Your task to perform on an android device: Go to settings Image 0: 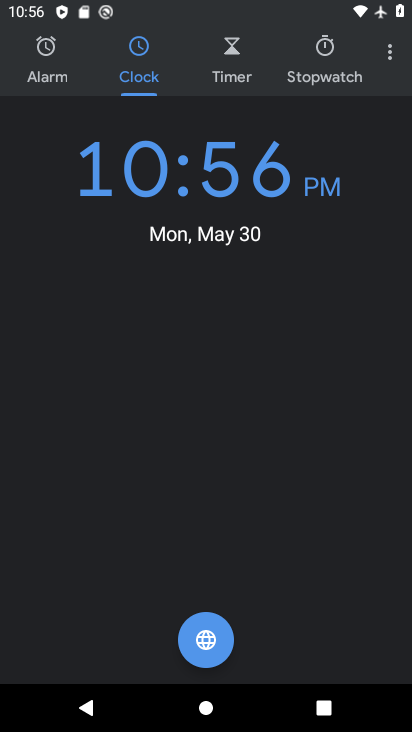
Step 0: press home button
Your task to perform on an android device: Go to settings Image 1: 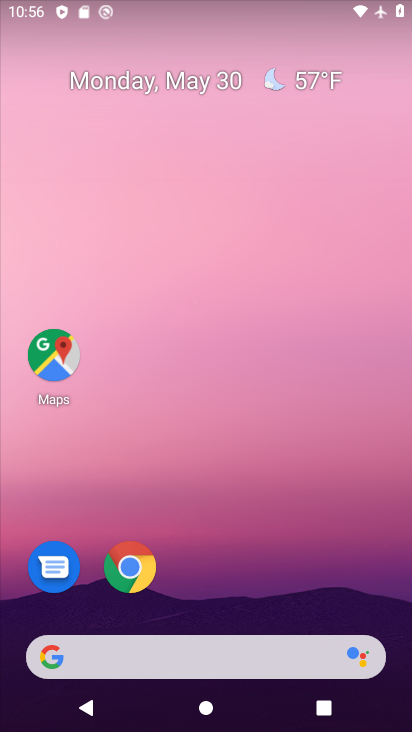
Step 1: drag from (192, 542) to (178, 206)
Your task to perform on an android device: Go to settings Image 2: 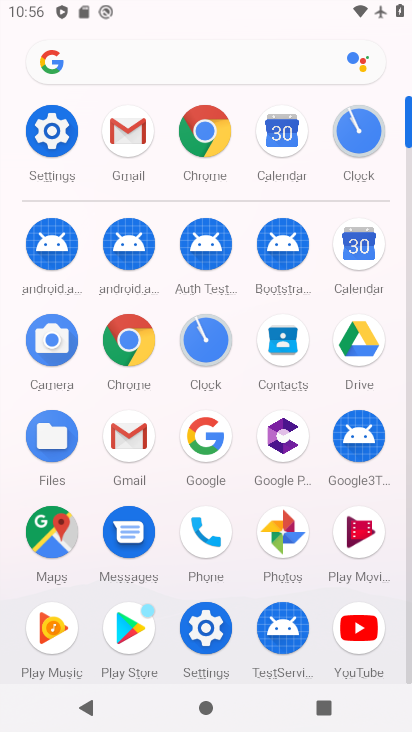
Step 2: click (42, 141)
Your task to perform on an android device: Go to settings Image 3: 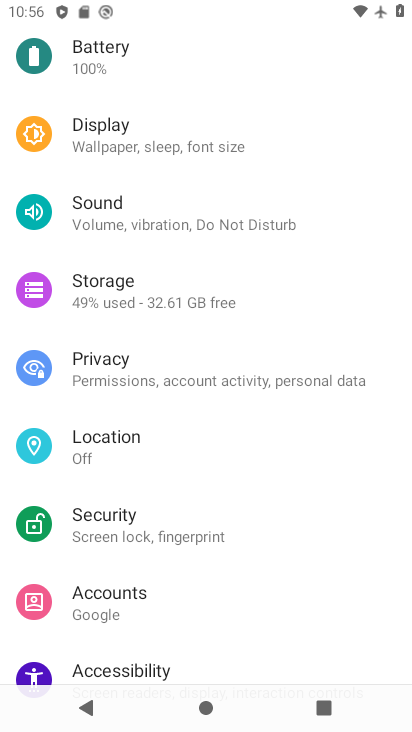
Step 3: task complete